Your task to perform on an android device: change the clock display to show seconds Image 0: 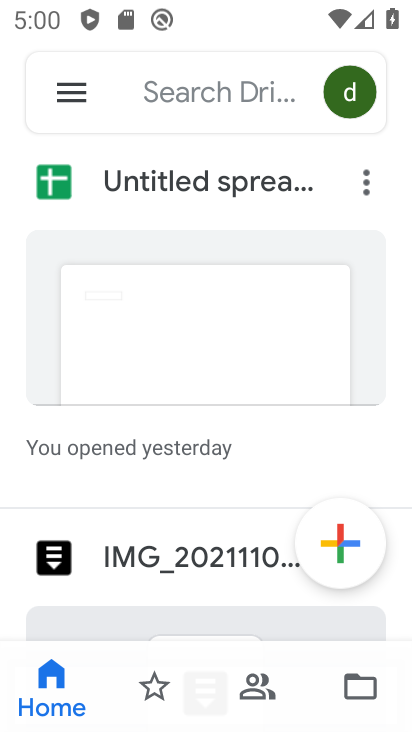
Step 0: press home button
Your task to perform on an android device: change the clock display to show seconds Image 1: 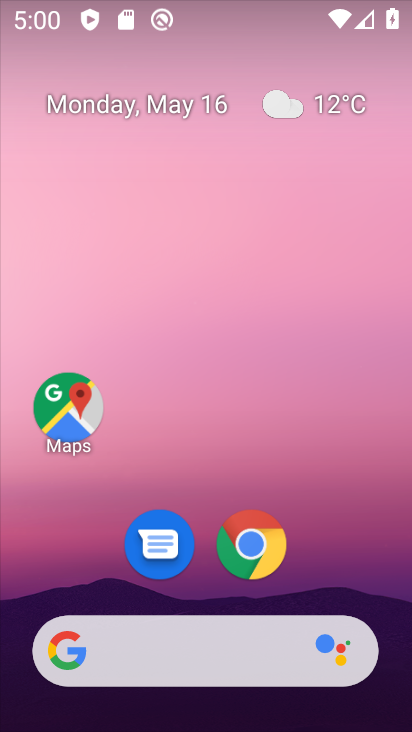
Step 1: drag from (334, 576) to (291, 7)
Your task to perform on an android device: change the clock display to show seconds Image 2: 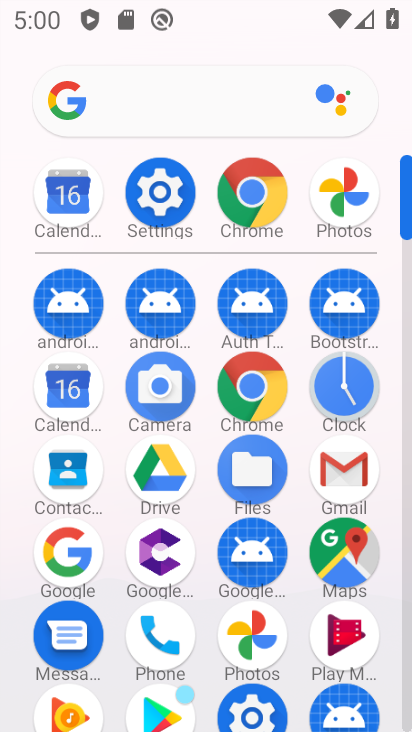
Step 2: click (343, 387)
Your task to perform on an android device: change the clock display to show seconds Image 3: 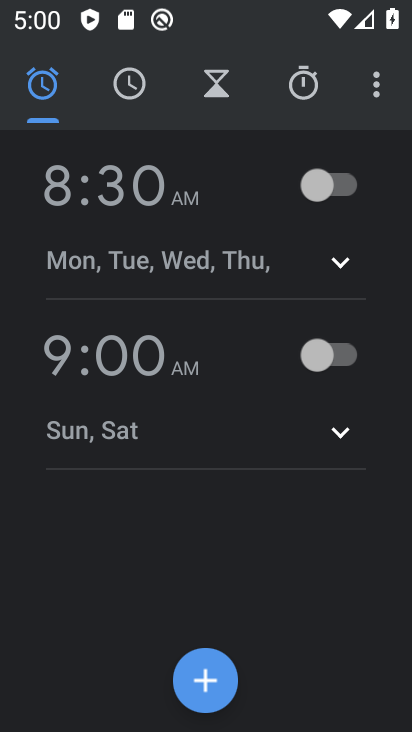
Step 3: click (377, 83)
Your task to perform on an android device: change the clock display to show seconds Image 4: 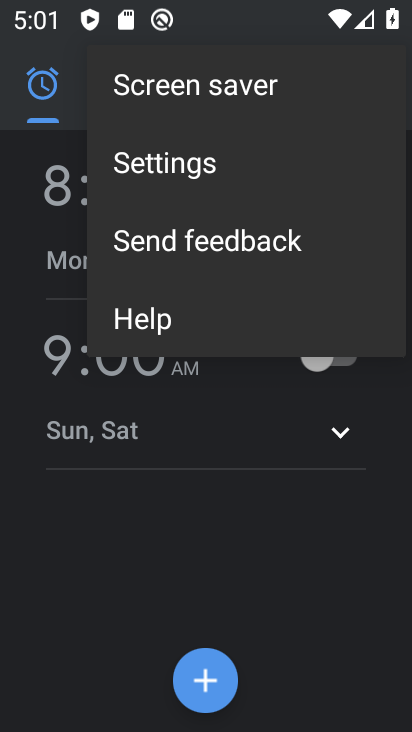
Step 4: click (180, 159)
Your task to perform on an android device: change the clock display to show seconds Image 5: 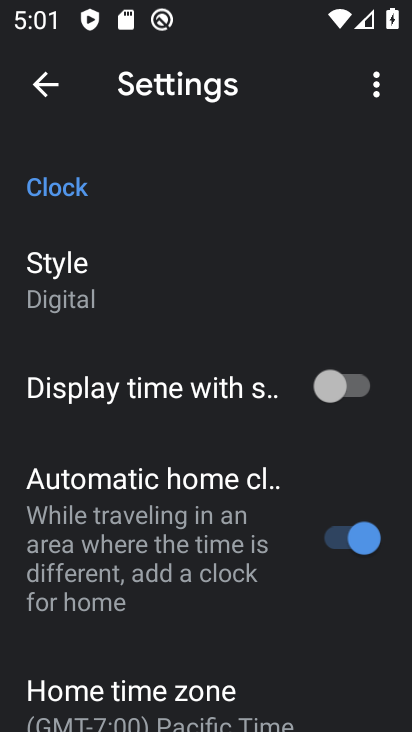
Step 5: click (337, 391)
Your task to perform on an android device: change the clock display to show seconds Image 6: 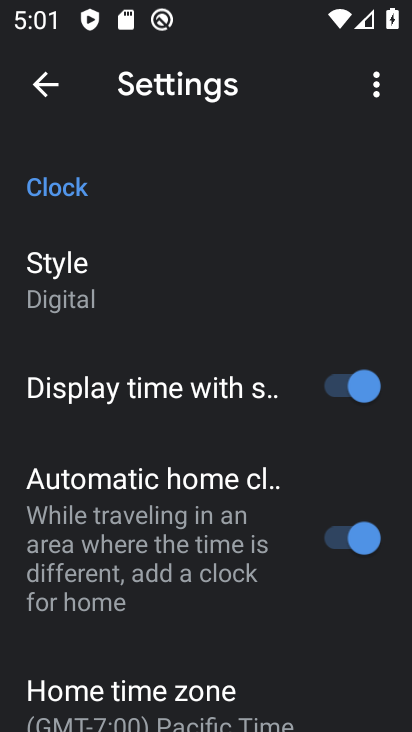
Step 6: task complete